Your task to perform on an android device: turn on the 12-hour format for clock Image 0: 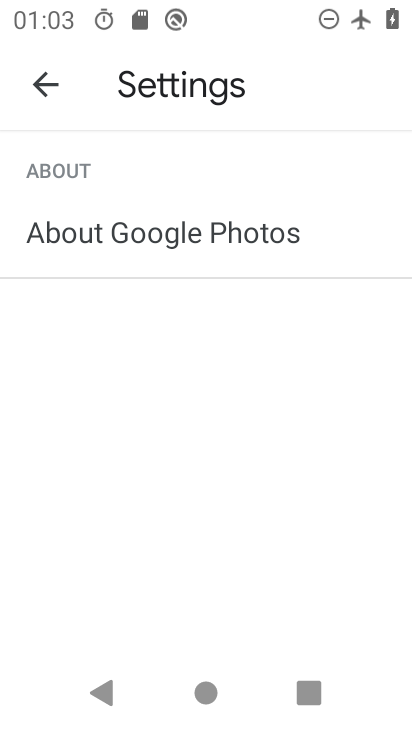
Step 0: press home button
Your task to perform on an android device: turn on the 12-hour format for clock Image 1: 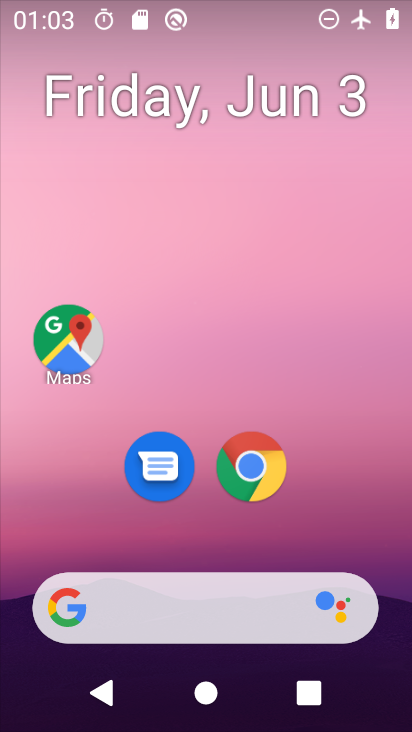
Step 1: drag from (183, 546) to (203, 112)
Your task to perform on an android device: turn on the 12-hour format for clock Image 2: 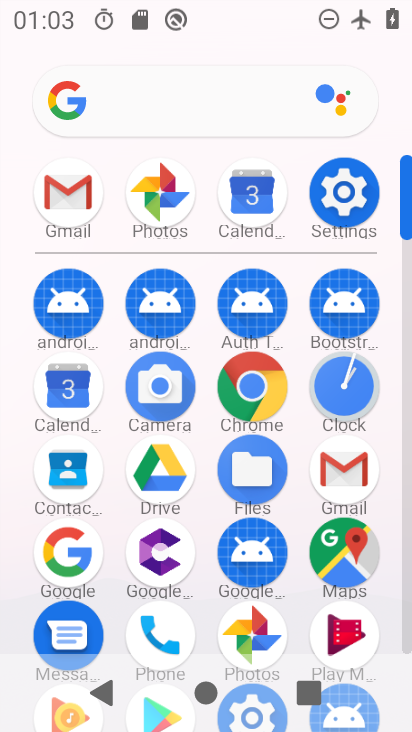
Step 2: click (339, 388)
Your task to perform on an android device: turn on the 12-hour format for clock Image 3: 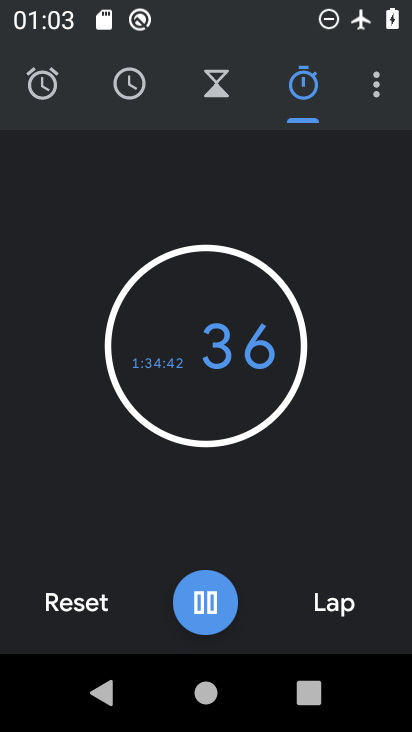
Step 3: click (373, 99)
Your task to perform on an android device: turn on the 12-hour format for clock Image 4: 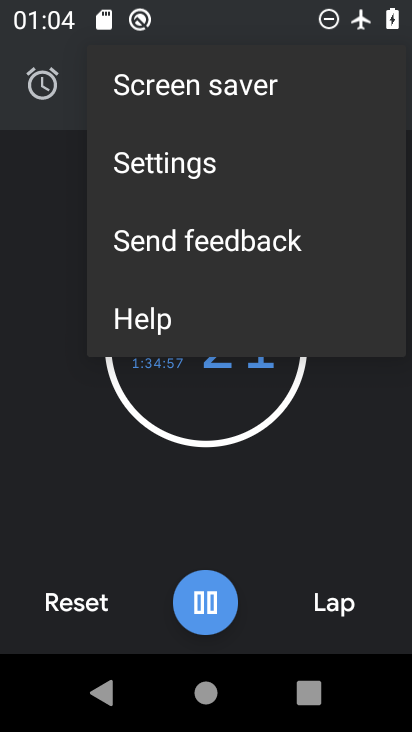
Step 4: click (152, 150)
Your task to perform on an android device: turn on the 12-hour format for clock Image 5: 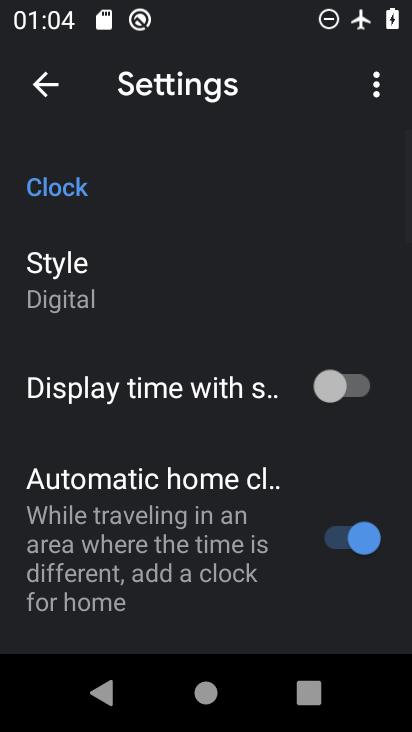
Step 5: drag from (122, 543) to (191, 178)
Your task to perform on an android device: turn on the 12-hour format for clock Image 6: 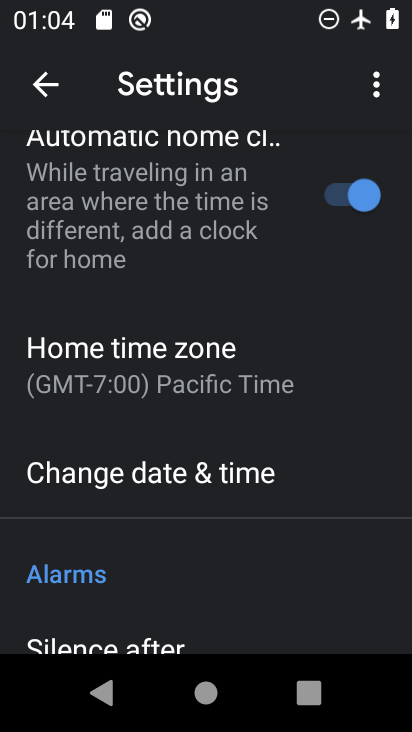
Step 6: click (179, 450)
Your task to perform on an android device: turn on the 12-hour format for clock Image 7: 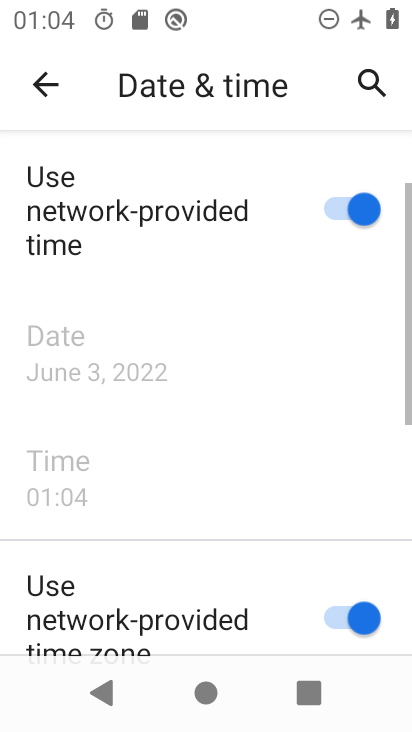
Step 7: drag from (187, 588) to (217, 186)
Your task to perform on an android device: turn on the 12-hour format for clock Image 8: 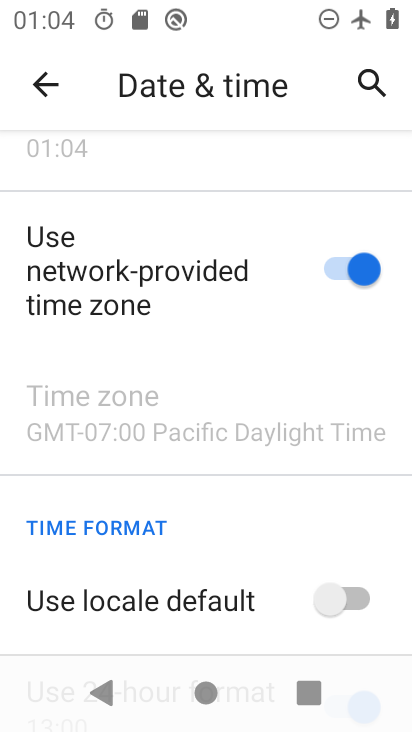
Step 8: drag from (213, 546) to (225, 193)
Your task to perform on an android device: turn on the 12-hour format for clock Image 9: 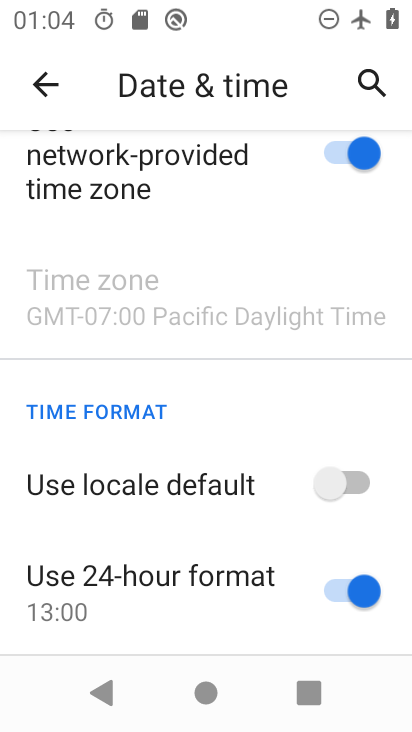
Step 9: click (352, 477)
Your task to perform on an android device: turn on the 12-hour format for clock Image 10: 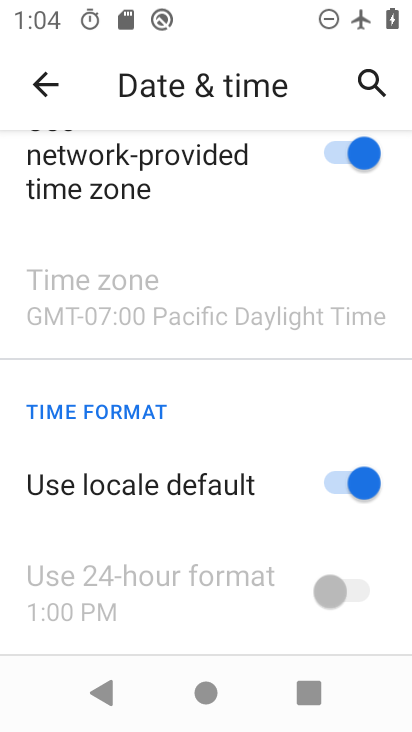
Step 10: task complete